Your task to perform on an android device: Open Google Maps and go to "Timeline" Image 0: 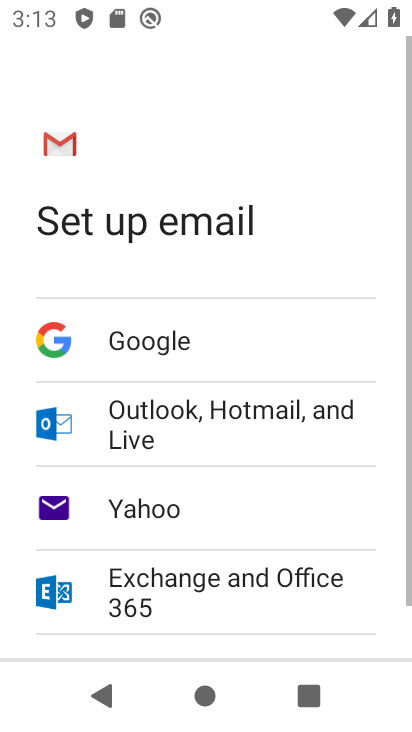
Step 0: press back button
Your task to perform on an android device: Open Google Maps and go to "Timeline" Image 1: 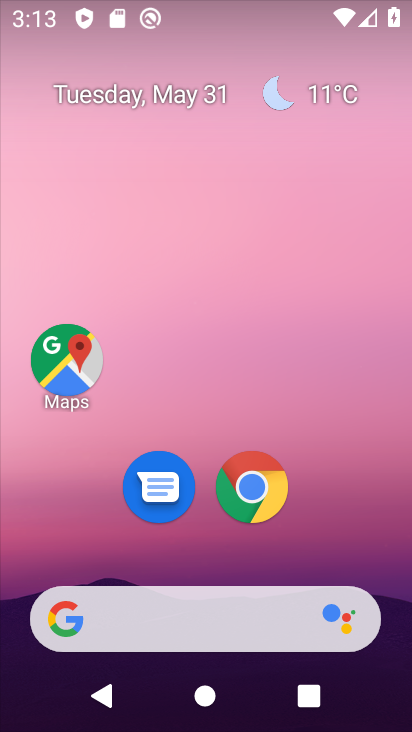
Step 1: click (65, 361)
Your task to perform on an android device: Open Google Maps and go to "Timeline" Image 2: 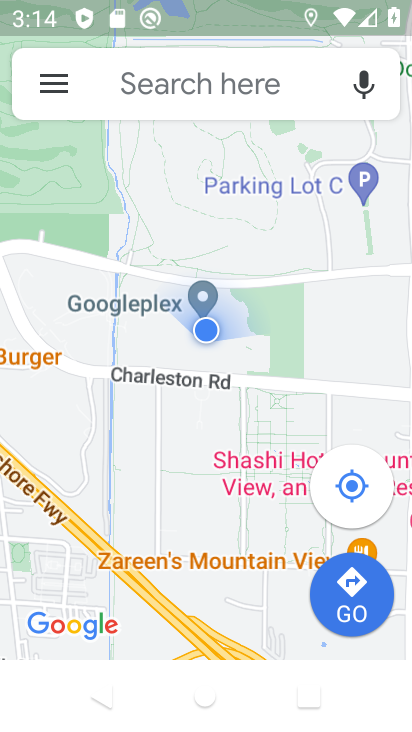
Step 2: click (56, 81)
Your task to perform on an android device: Open Google Maps and go to "Timeline" Image 3: 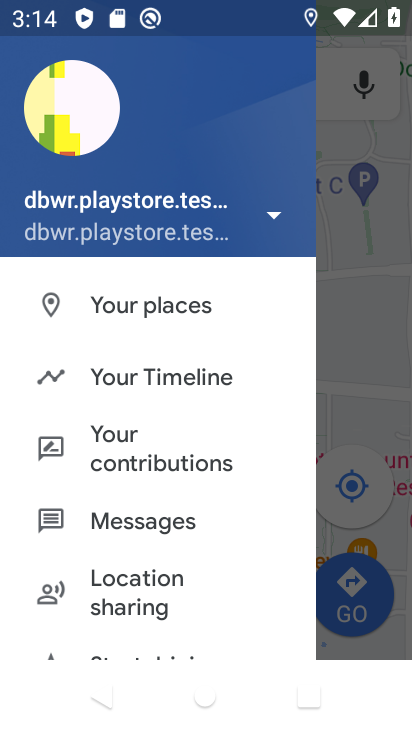
Step 3: click (161, 380)
Your task to perform on an android device: Open Google Maps and go to "Timeline" Image 4: 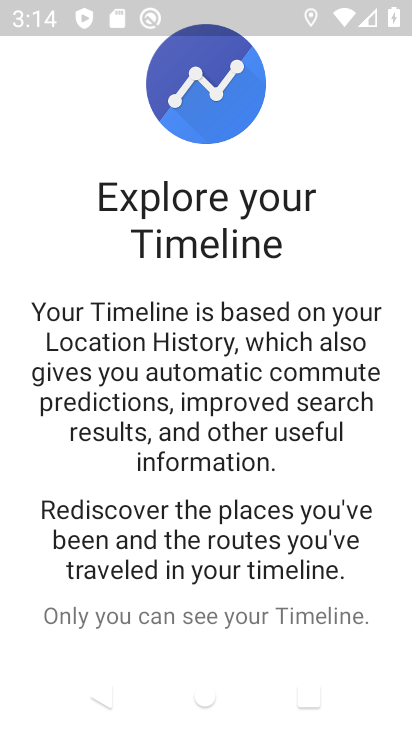
Step 4: drag from (256, 526) to (350, 354)
Your task to perform on an android device: Open Google Maps and go to "Timeline" Image 5: 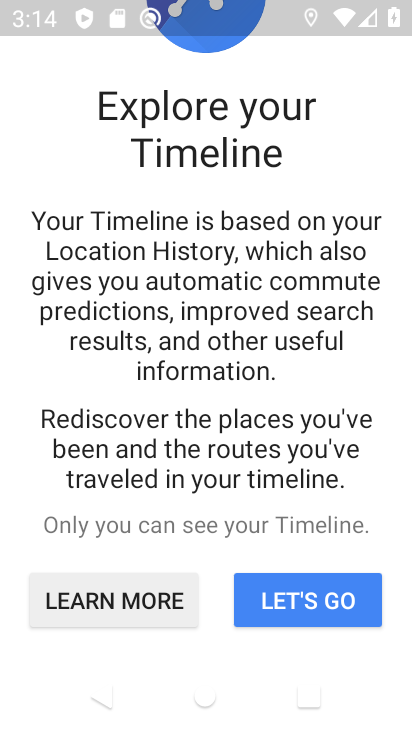
Step 5: click (305, 603)
Your task to perform on an android device: Open Google Maps and go to "Timeline" Image 6: 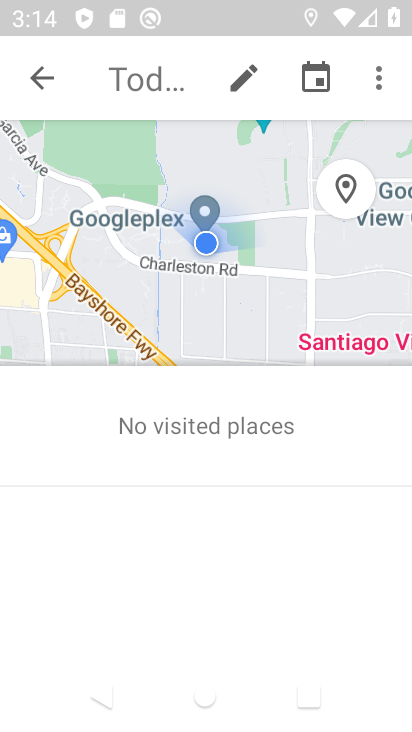
Step 6: task complete